Your task to perform on an android device: open sync settings in chrome Image 0: 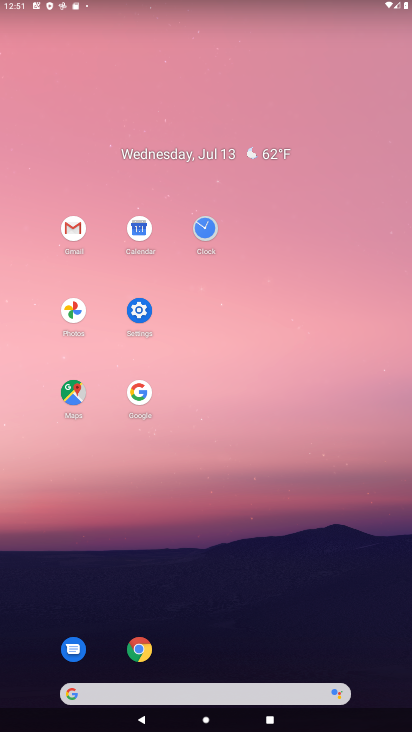
Step 0: click (136, 654)
Your task to perform on an android device: open sync settings in chrome Image 1: 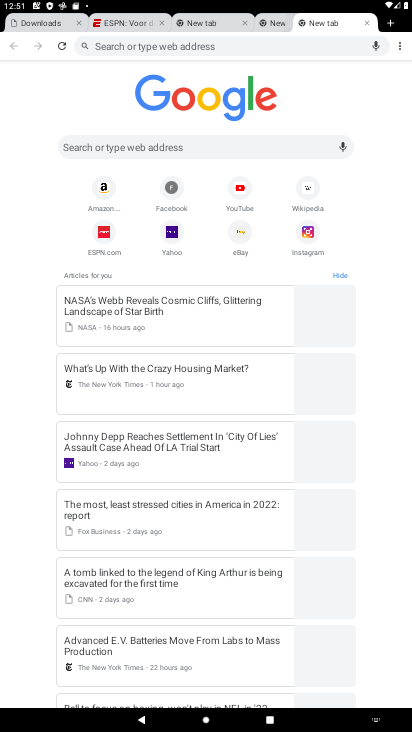
Step 1: click (395, 46)
Your task to perform on an android device: open sync settings in chrome Image 2: 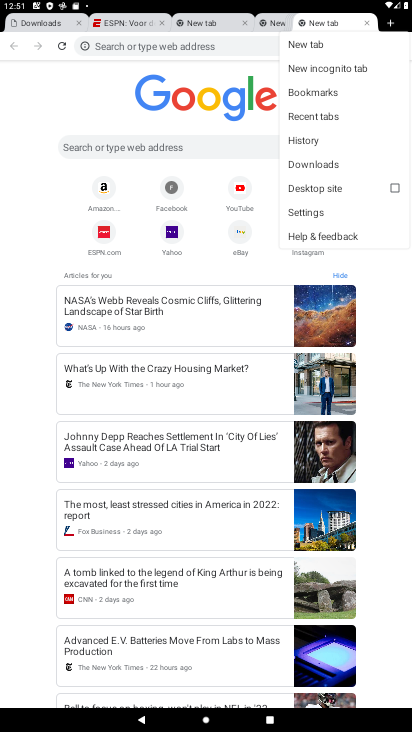
Step 2: click (321, 207)
Your task to perform on an android device: open sync settings in chrome Image 3: 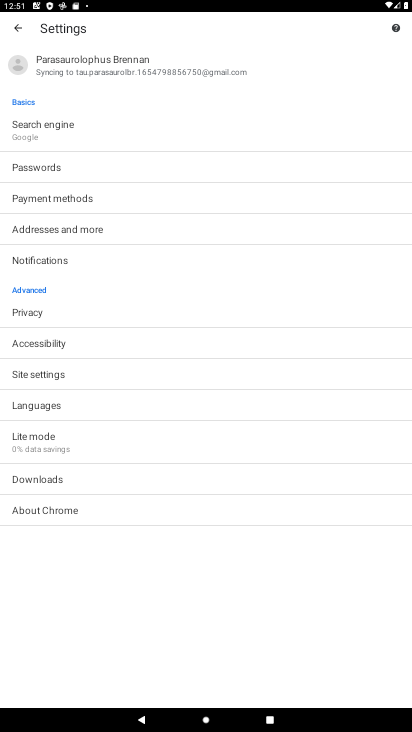
Step 3: click (87, 368)
Your task to perform on an android device: open sync settings in chrome Image 4: 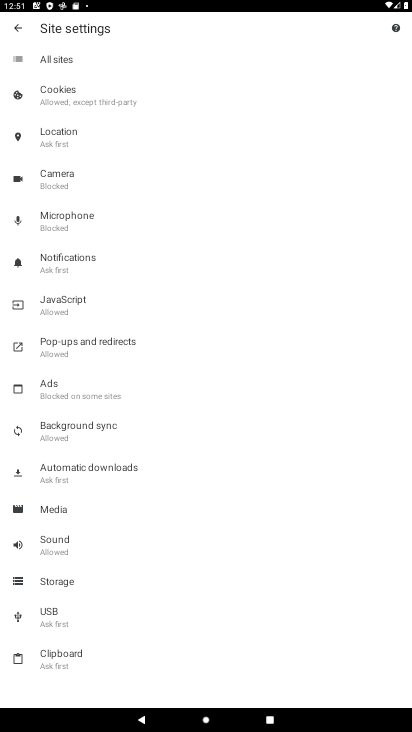
Step 4: click (123, 431)
Your task to perform on an android device: open sync settings in chrome Image 5: 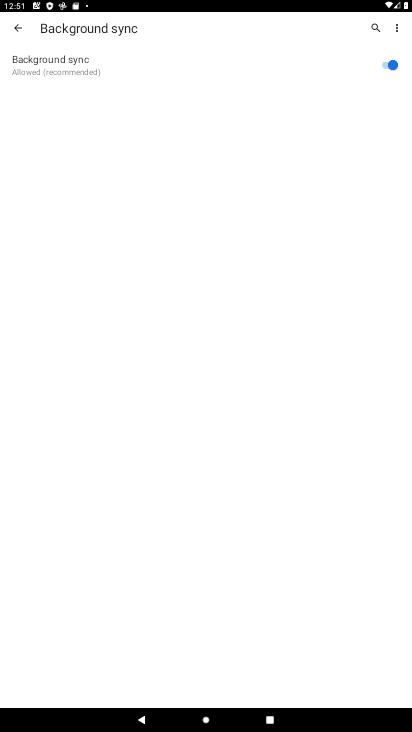
Step 5: task complete